Your task to perform on an android device: Go to accessibility settings Image 0: 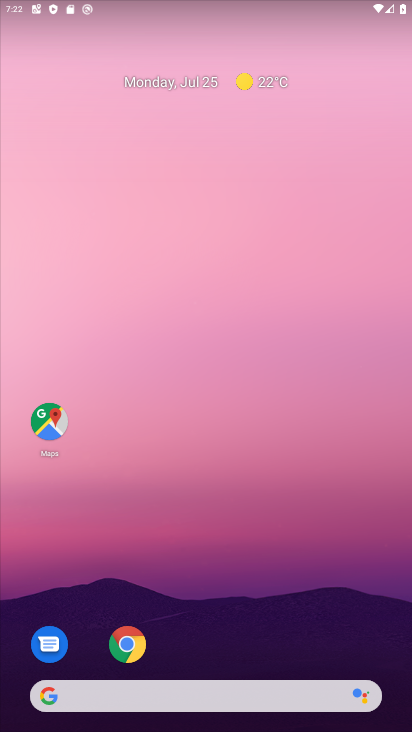
Step 0: press home button
Your task to perform on an android device: Go to accessibility settings Image 1: 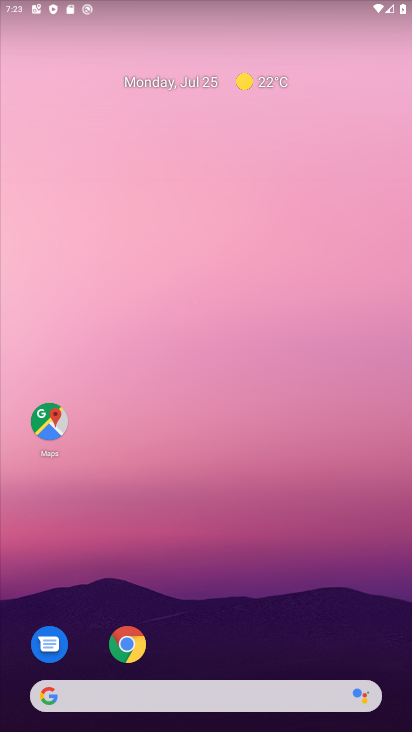
Step 1: drag from (204, 664) to (201, 62)
Your task to perform on an android device: Go to accessibility settings Image 2: 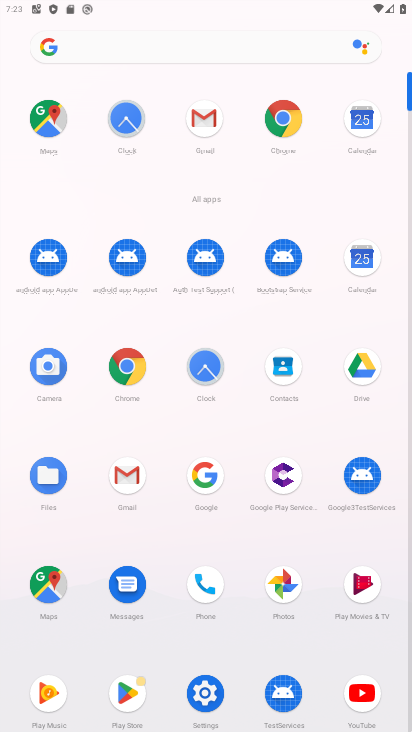
Step 2: click (202, 686)
Your task to perform on an android device: Go to accessibility settings Image 3: 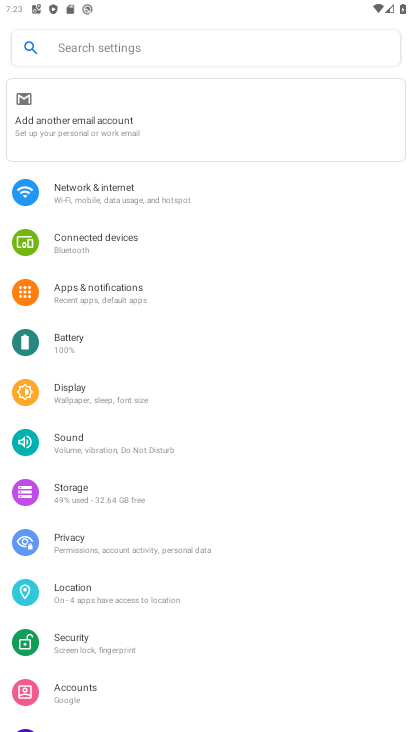
Step 3: drag from (238, 653) to (259, 306)
Your task to perform on an android device: Go to accessibility settings Image 4: 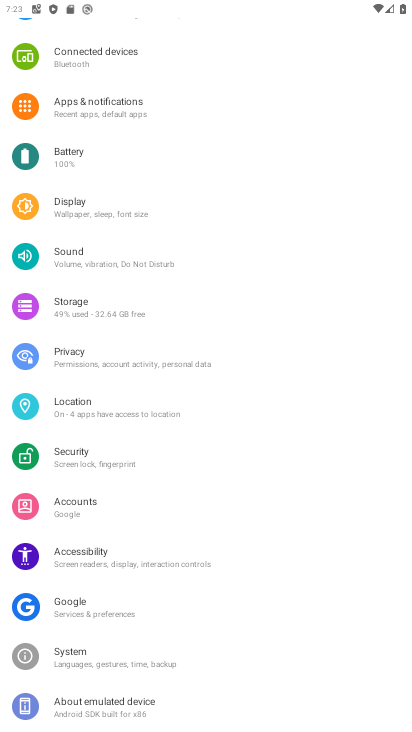
Step 4: click (128, 545)
Your task to perform on an android device: Go to accessibility settings Image 5: 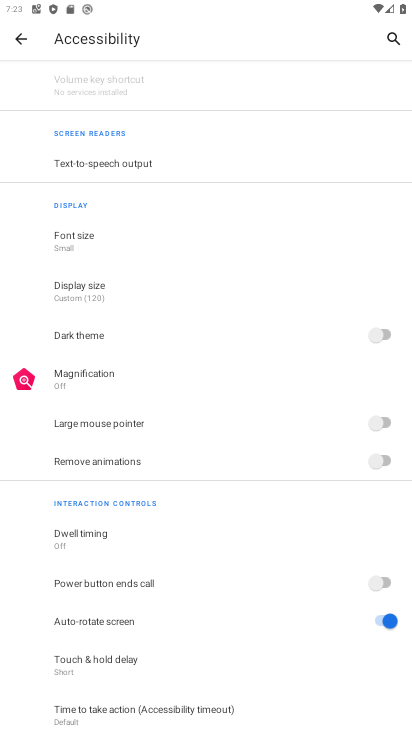
Step 5: task complete